Your task to perform on an android device: manage bookmarks in the chrome app Image 0: 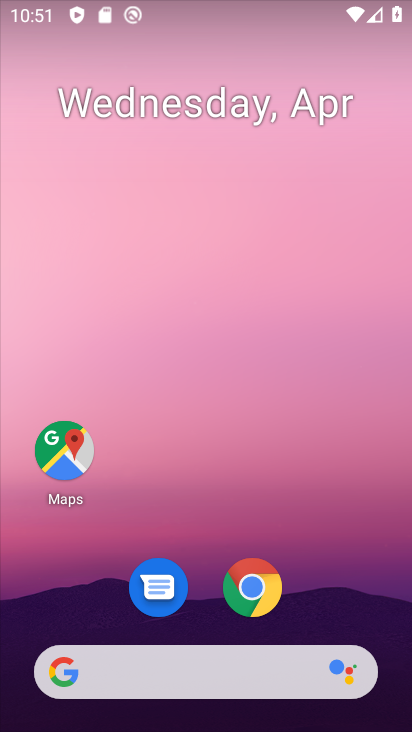
Step 0: click (253, 591)
Your task to perform on an android device: manage bookmarks in the chrome app Image 1: 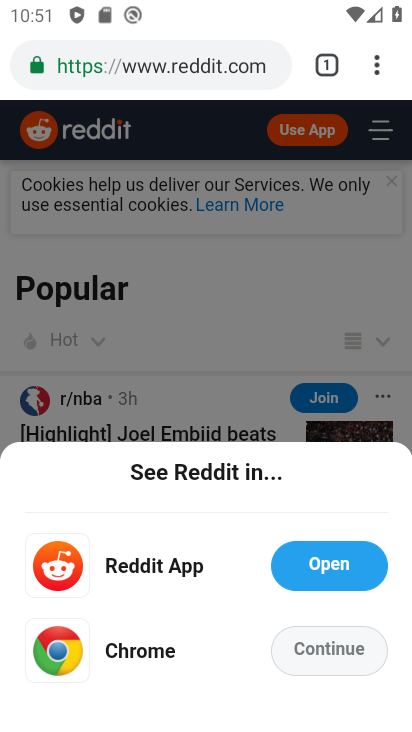
Step 1: click (384, 54)
Your task to perform on an android device: manage bookmarks in the chrome app Image 2: 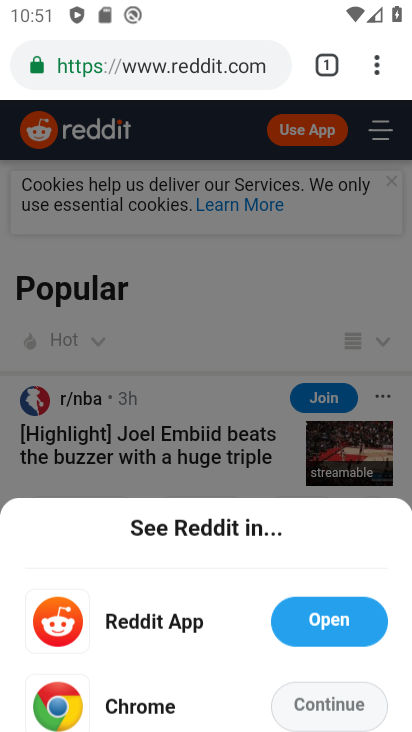
Step 2: task complete